Your task to perform on an android device: Open the web browser Image 0: 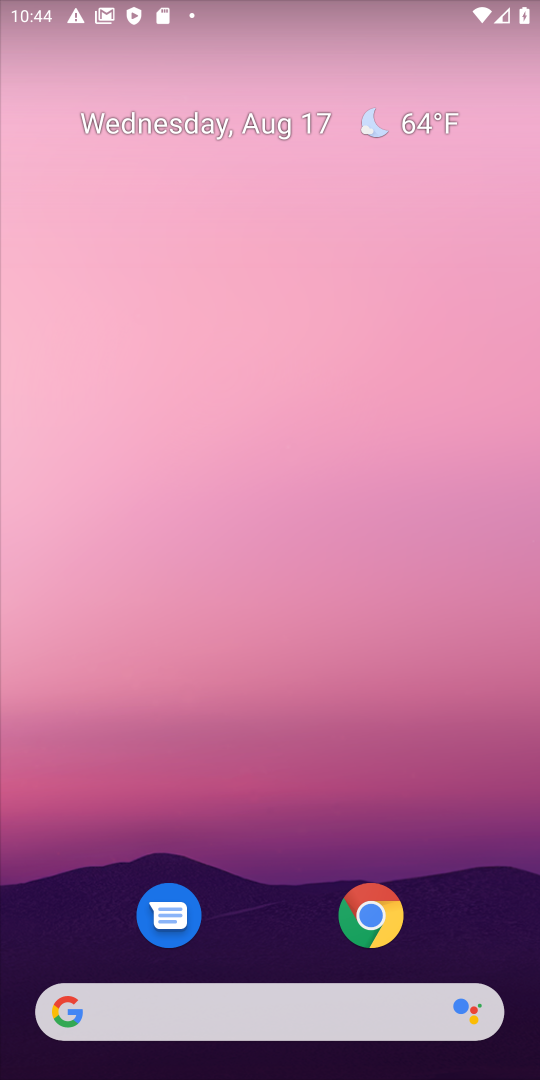
Step 0: click (367, 919)
Your task to perform on an android device: Open the web browser Image 1: 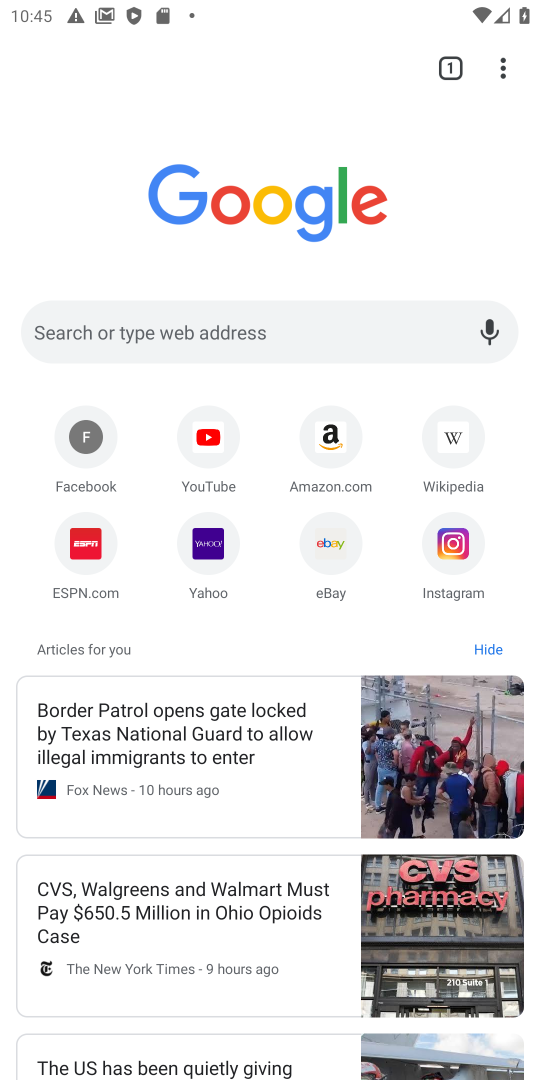
Step 1: task complete